Your task to perform on an android device: Open Google Chrome and click the shortcut for Amazon.com Image 0: 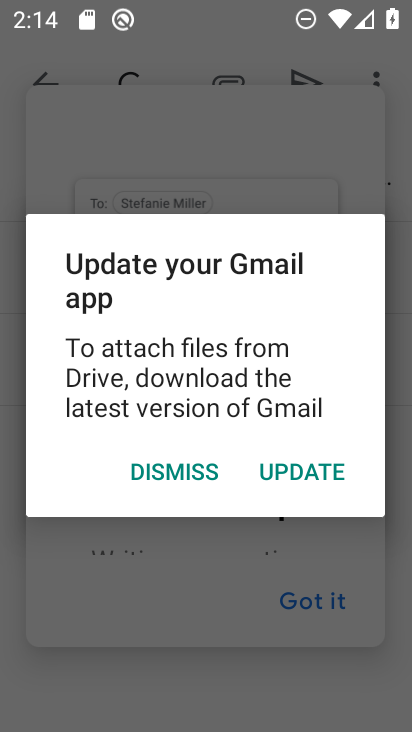
Step 0: press home button
Your task to perform on an android device: Open Google Chrome and click the shortcut for Amazon.com Image 1: 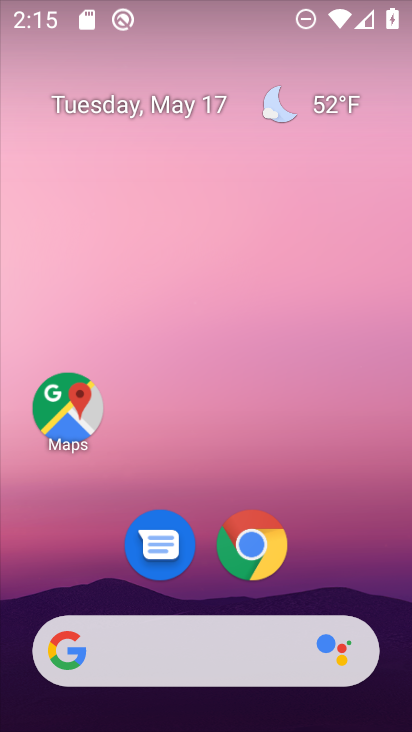
Step 1: drag from (357, 577) to (334, 225)
Your task to perform on an android device: Open Google Chrome and click the shortcut for Amazon.com Image 2: 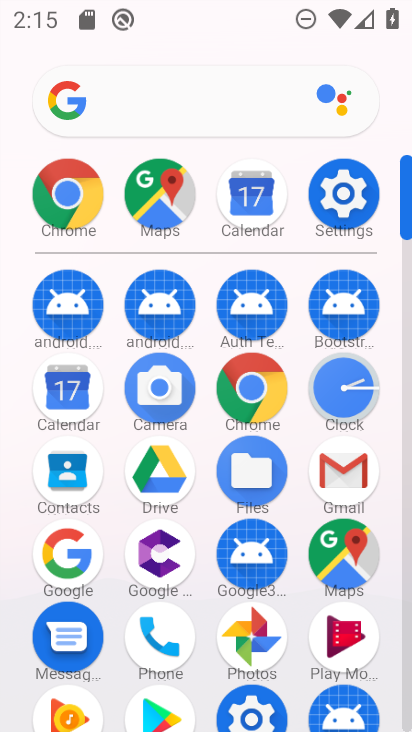
Step 2: click (257, 399)
Your task to perform on an android device: Open Google Chrome and click the shortcut for Amazon.com Image 3: 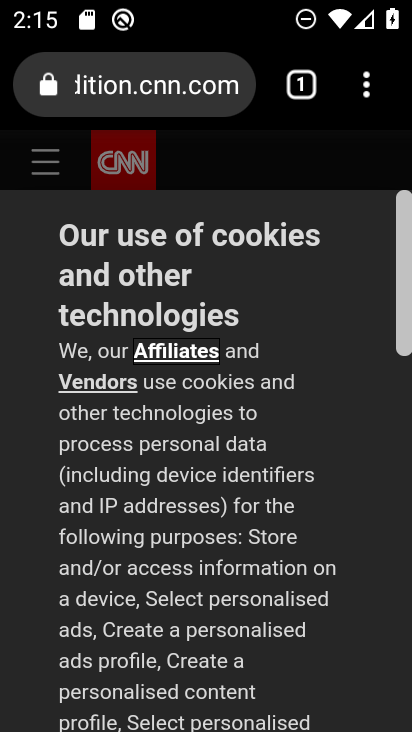
Step 3: task complete